Your task to perform on an android device: open app "VLC for Android" Image 0: 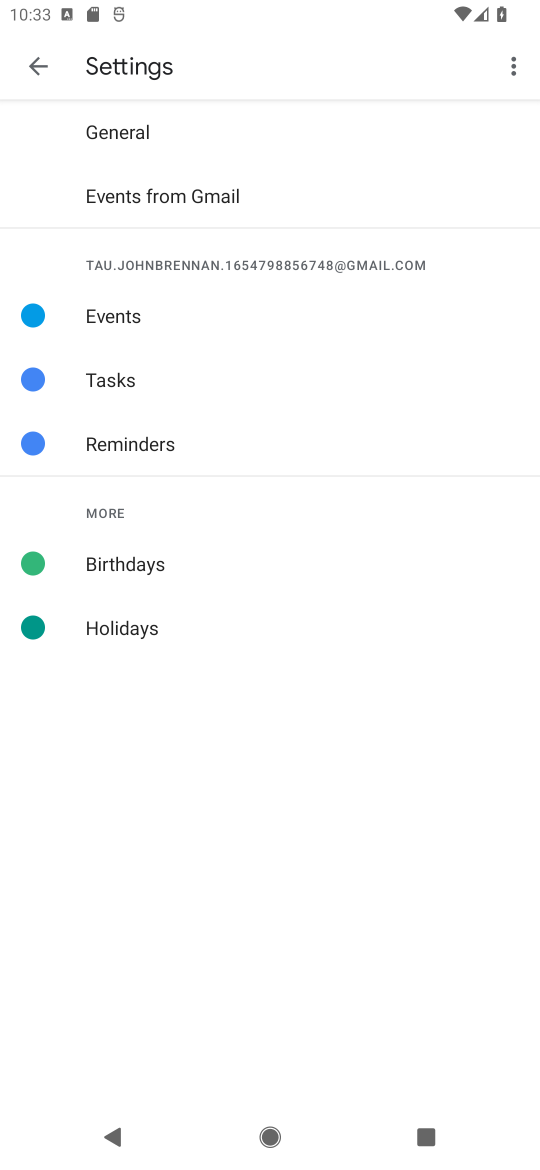
Step 0: press home button
Your task to perform on an android device: open app "VLC for Android" Image 1: 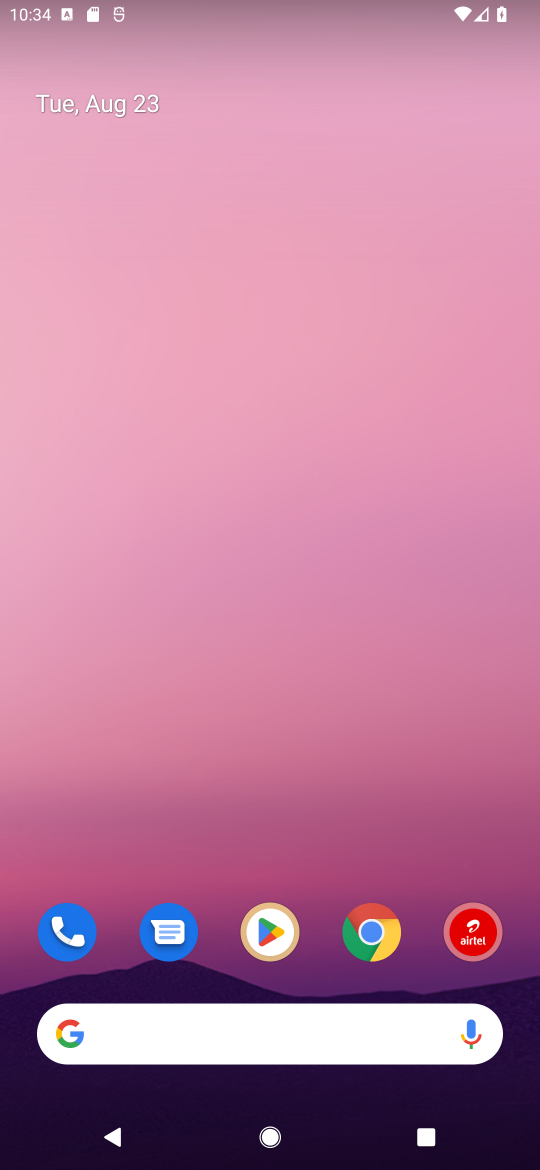
Step 1: click (248, 915)
Your task to perform on an android device: open app "VLC for Android" Image 2: 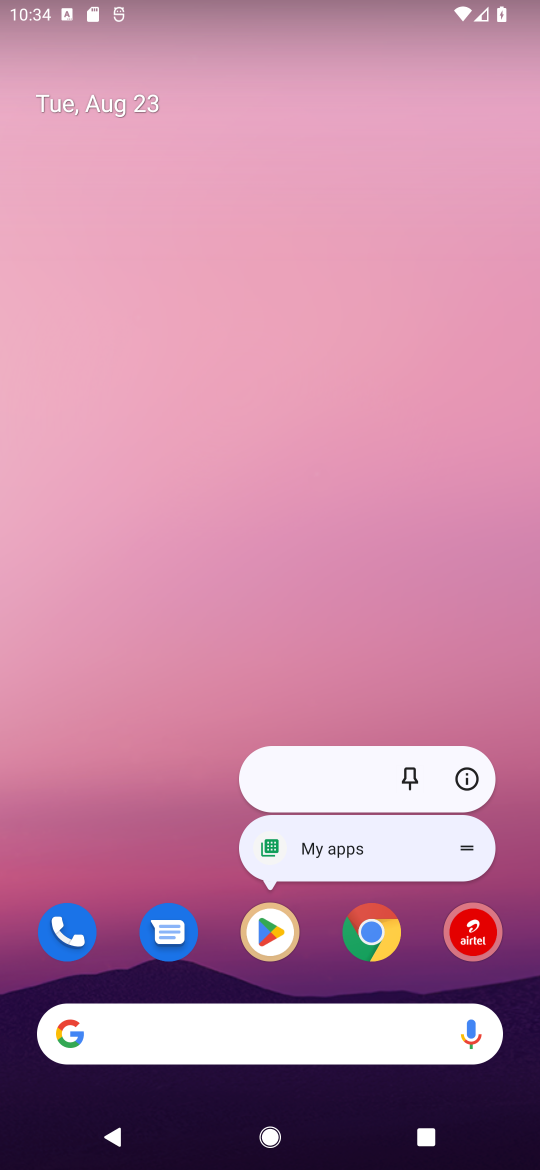
Step 2: click (259, 918)
Your task to perform on an android device: open app "VLC for Android" Image 3: 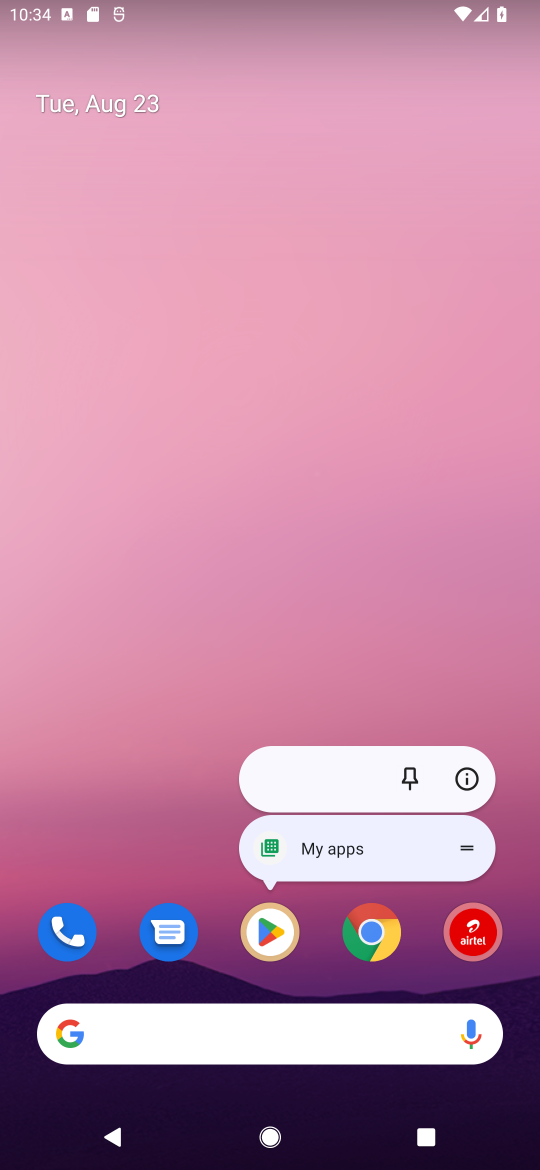
Step 3: click (268, 948)
Your task to perform on an android device: open app "VLC for Android" Image 4: 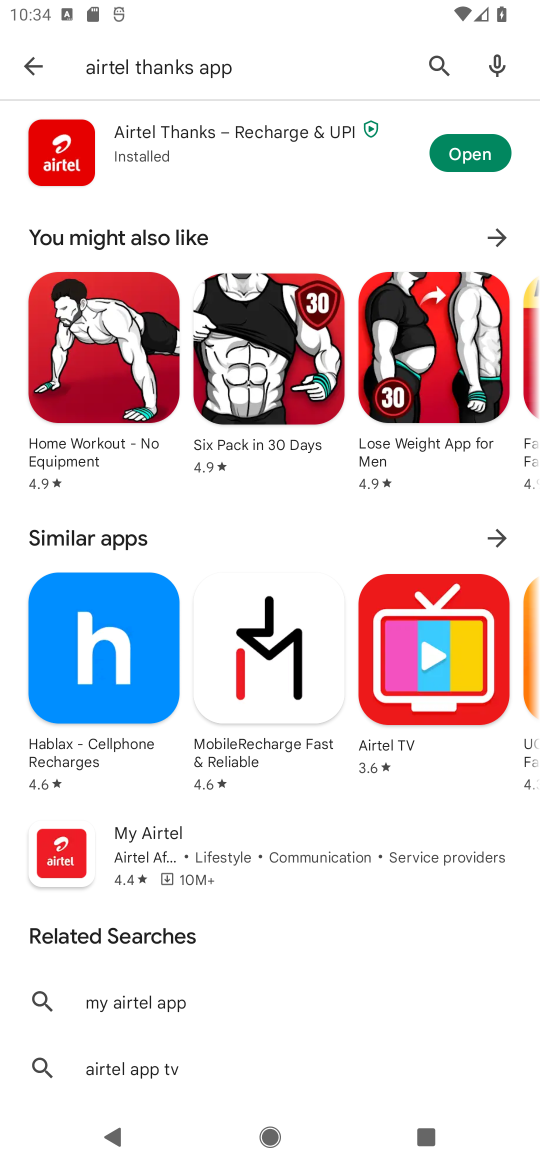
Step 4: click (439, 71)
Your task to perform on an android device: open app "VLC for Android" Image 5: 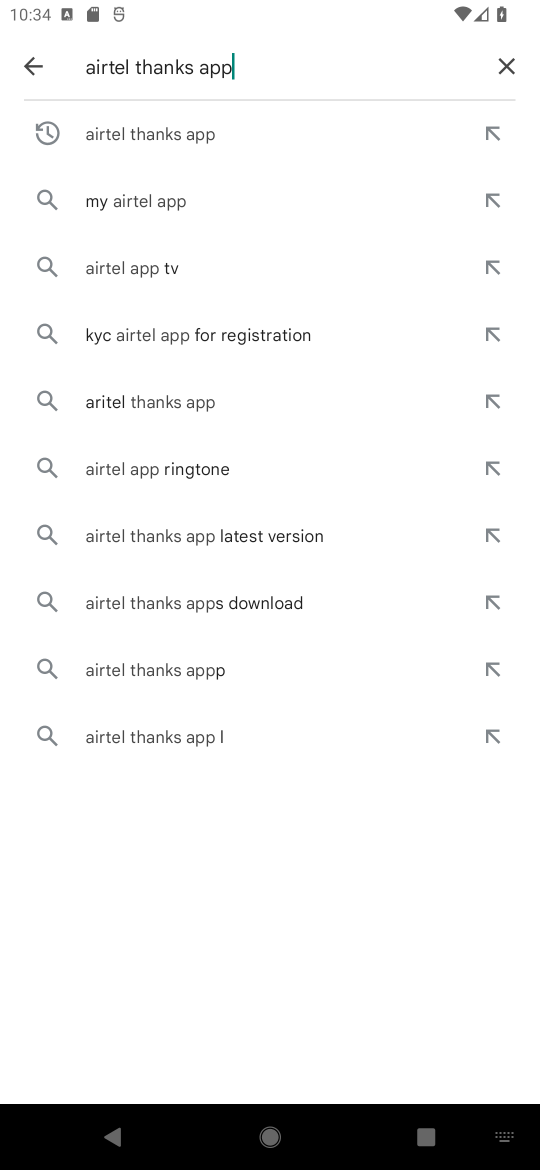
Step 5: click (507, 58)
Your task to perform on an android device: open app "VLC for Android" Image 6: 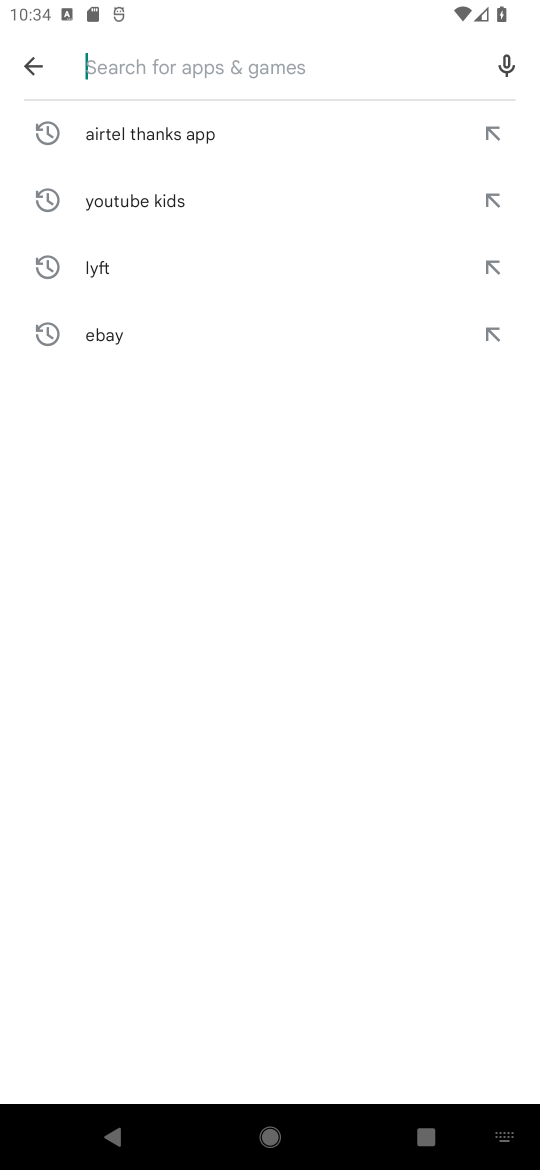
Step 6: click (109, 44)
Your task to perform on an android device: open app "VLC for Android" Image 7: 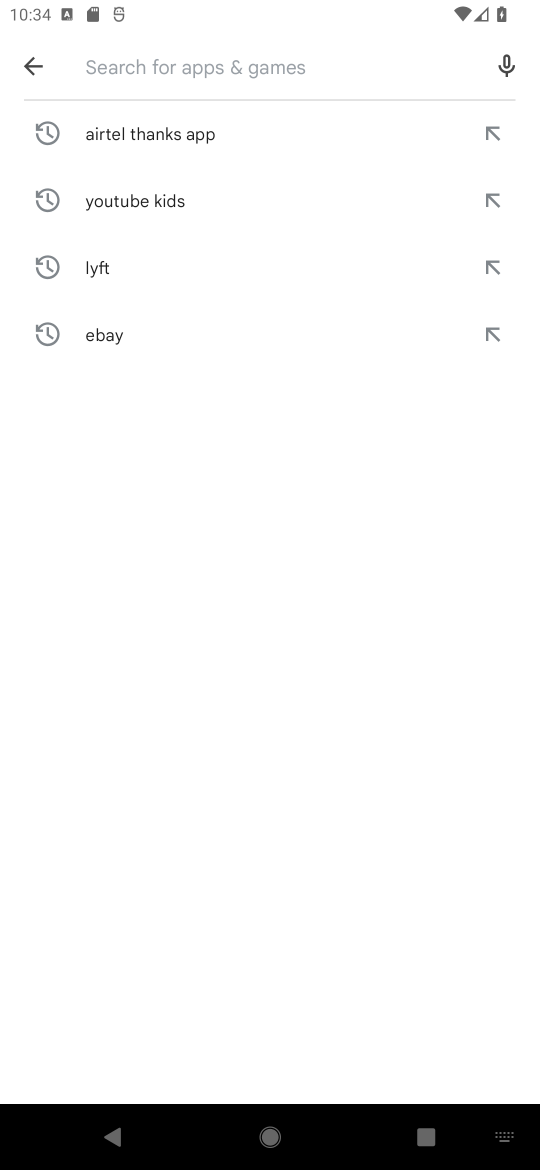
Step 7: type "VLC for Android"
Your task to perform on an android device: open app "VLC for Android" Image 8: 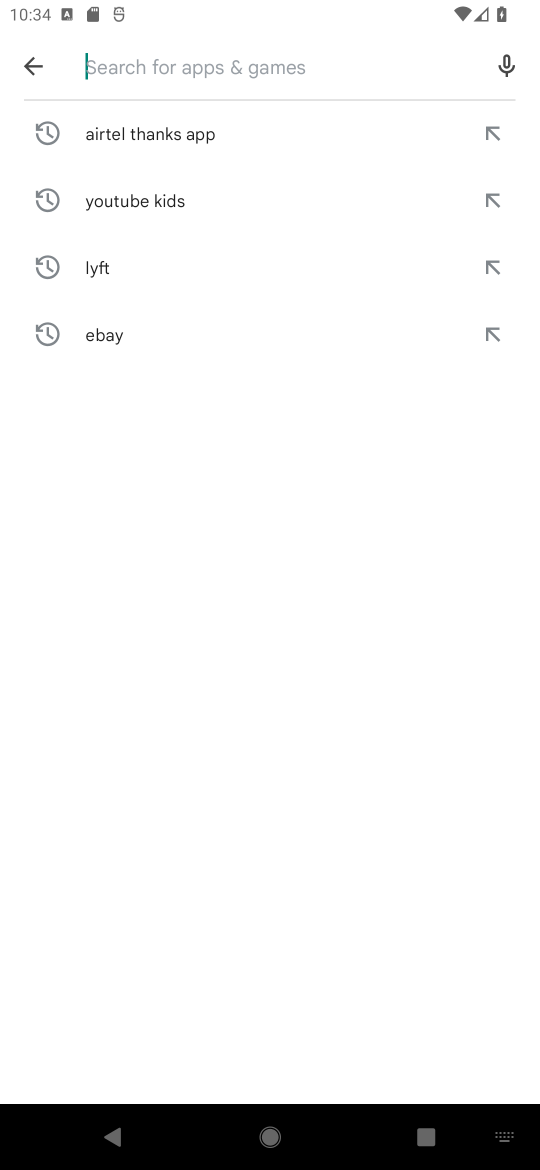
Step 8: click (180, 794)
Your task to perform on an android device: open app "VLC for Android" Image 9: 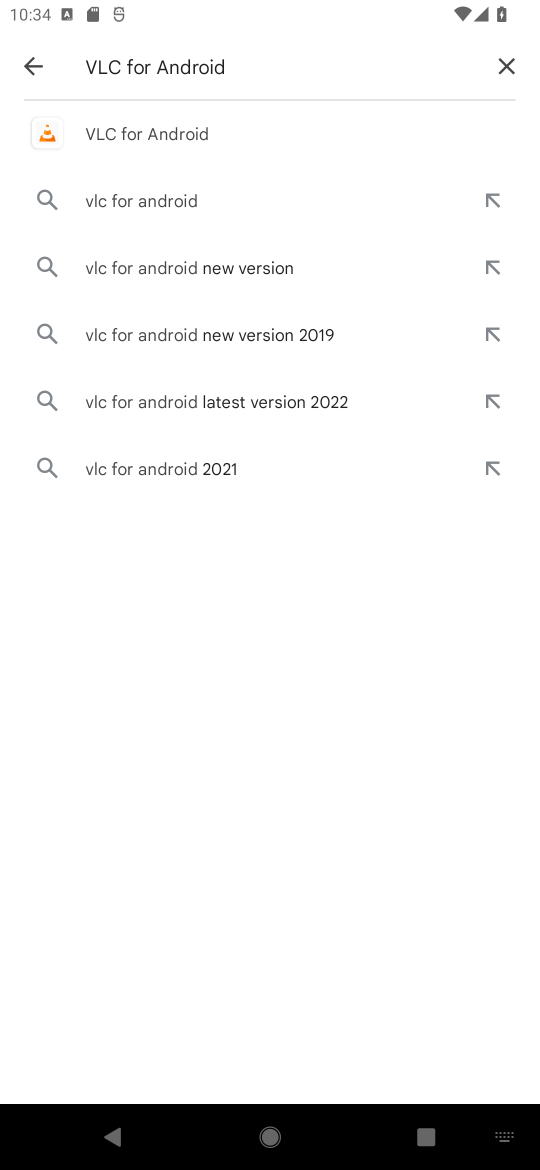
Step 9: click (131, 137)
Your task to perform on an android device: open app "VLC for Android" Image 10: 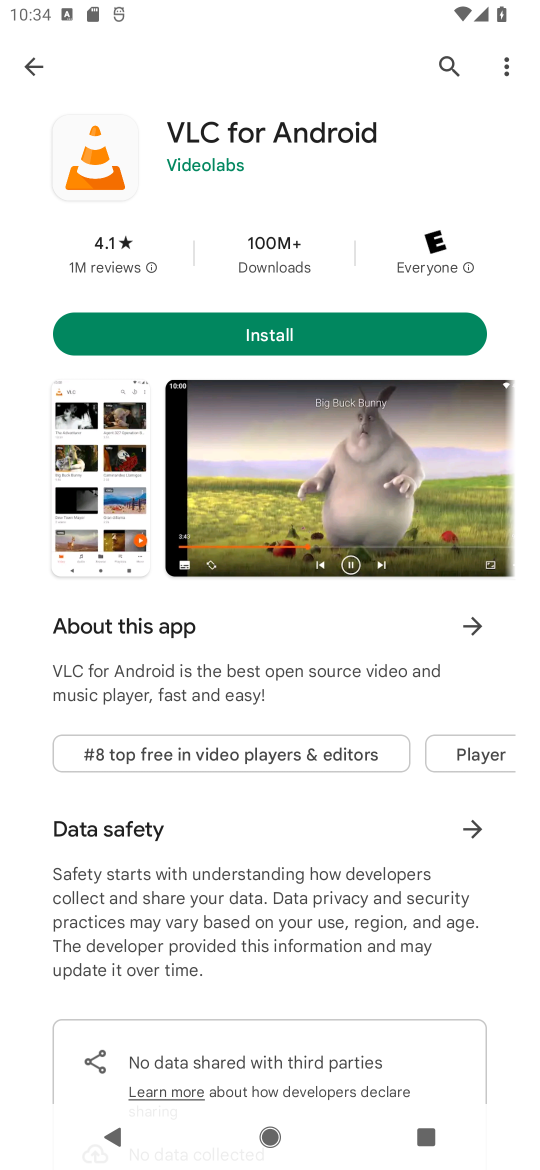
Step 10: task complete